Your task to perform on an android device: open chrome and create a bookmark for the current page Image 0: 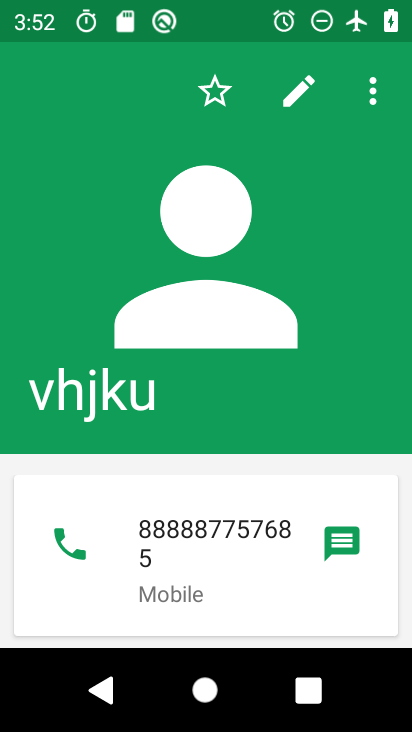
Step 0: press home button
Your task to perform on an android device: open chrome and create a bookmark for the current page Image 1: 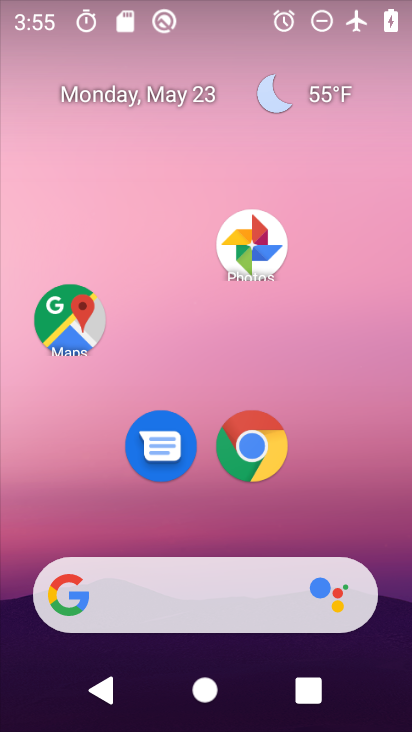
Step 1: click (233, 454)
Your task to perform on an android device: open chrome and create a bookmark for the current page Image 2: 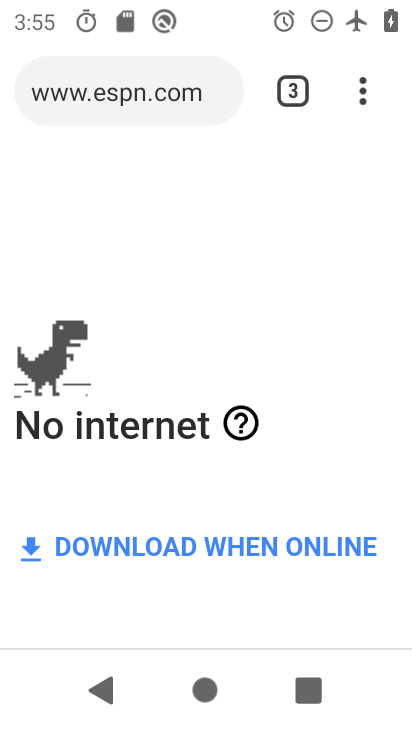
Step 2: task complete